Your task to perform on an android device: remove spam from my inbox in the gmail app Image 0: 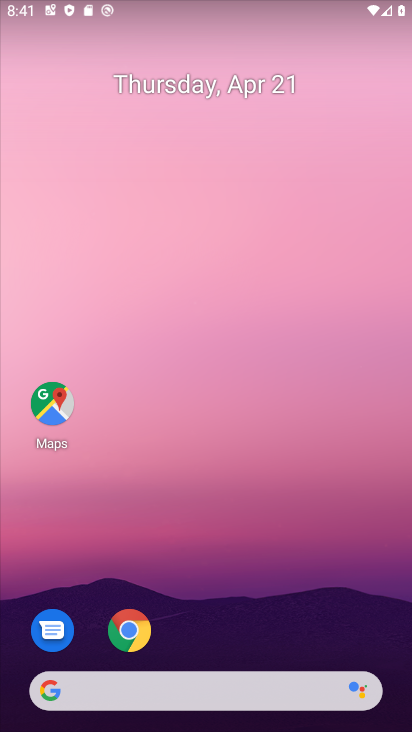
Step 0: drag from (202, 625) to (261, 200)
Your task to perform on an android device: remove spam from my inbox in the gmail app Image 1: 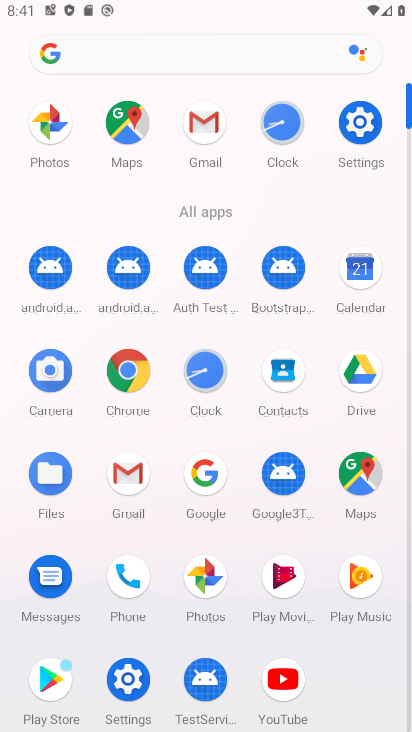
Step 1: click (145, 473)
Your task to perform on an android device: remove spam from my inbox in the gmail app Image 2: 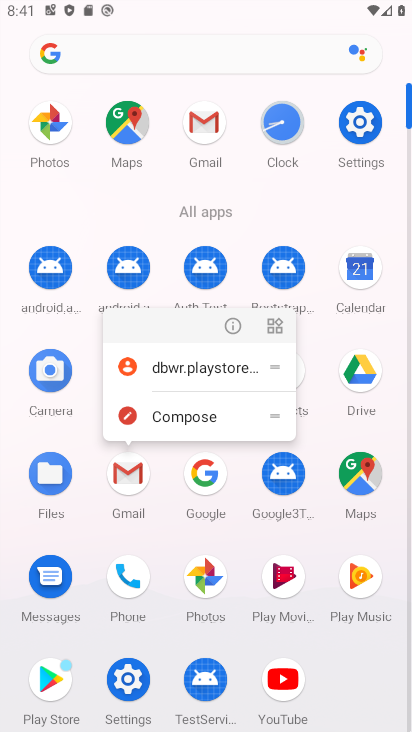
Step 2: click (130, 480)
Your task to perform on an android device: remove spam from my inbox in the gmail app Image 3: 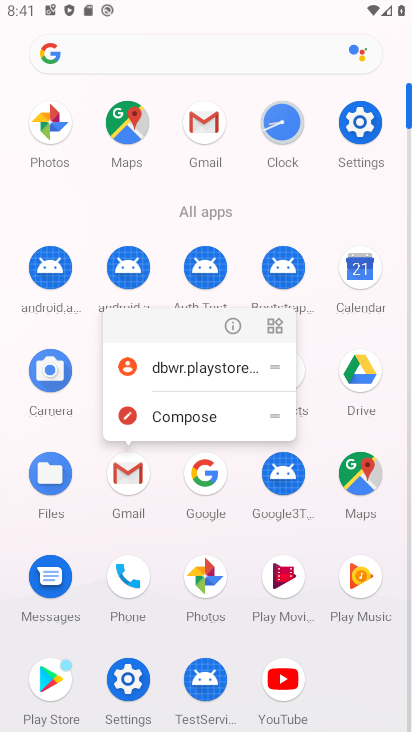
Step 3: click (120, 481)
Your task to perform on an android device: remove spam from my inbox in the gmail app Image 4: 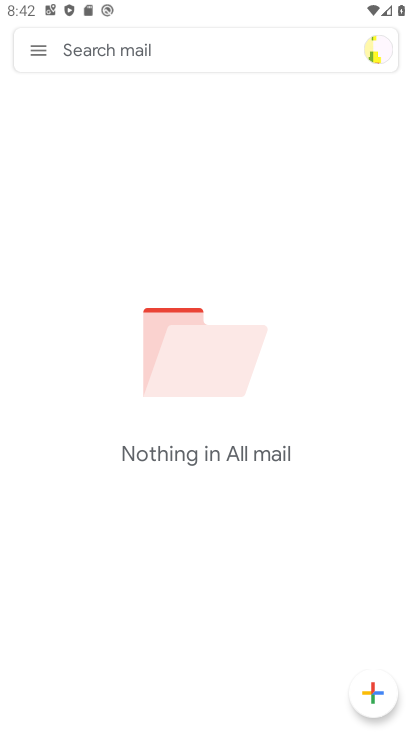
Step 4: click (34, 57)
Your task to perform on an android device: remove spam from my inbox in the gmail app Image 5: 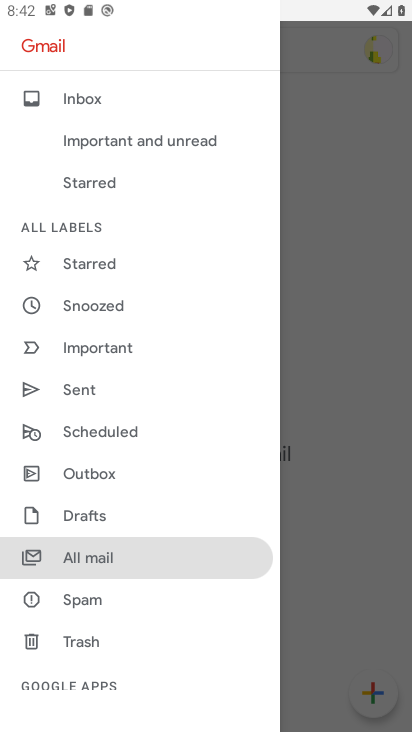
Step 5: click (132, 592)
Your task to perform on an android device: remove spam from my inbox in the gmail app Image 6: 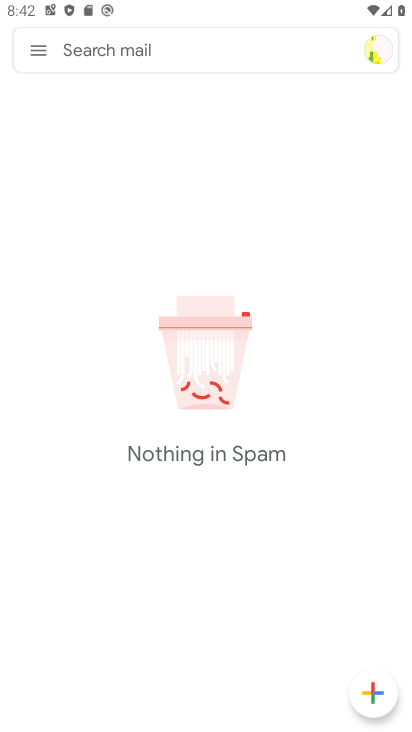
Step 6: task complete